Your task to perform on an android device: Open eBay Image 0: 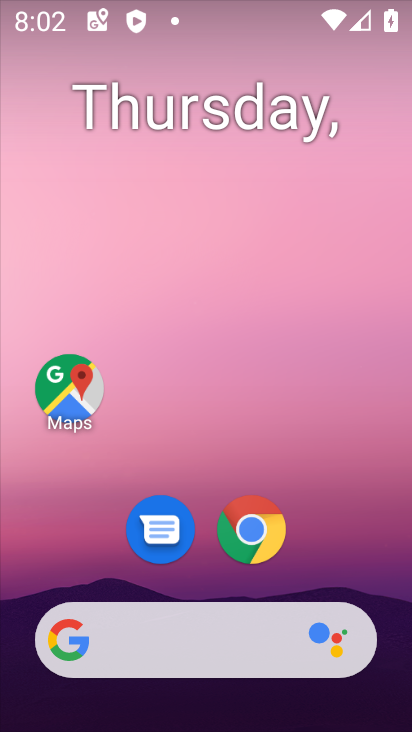
Step 0: click (246, 537)
Your task to perform on an android device: Open eBay Image 1: 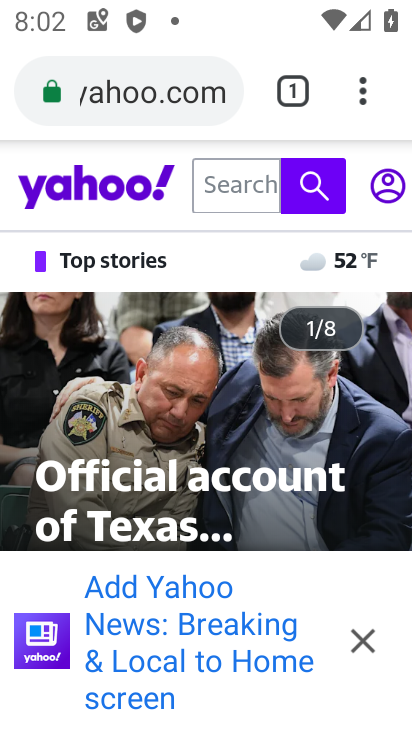
Step 1: click (365, 98)
Your task to perform on an android device: Open eBay Image 2: 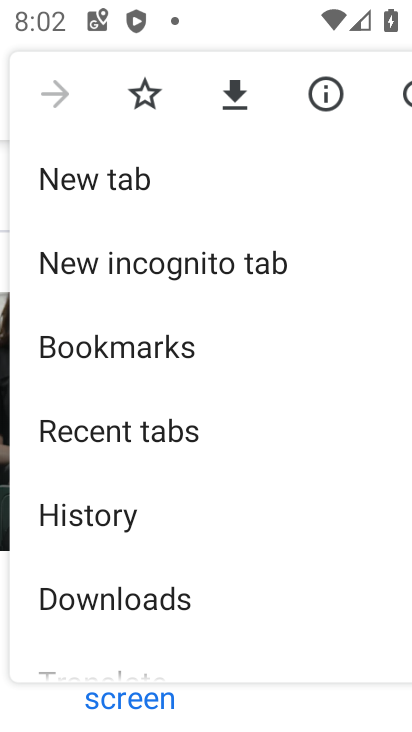
Step 2: click (67, 183)
Your task to perform on an android device: Open eBay Image 3: 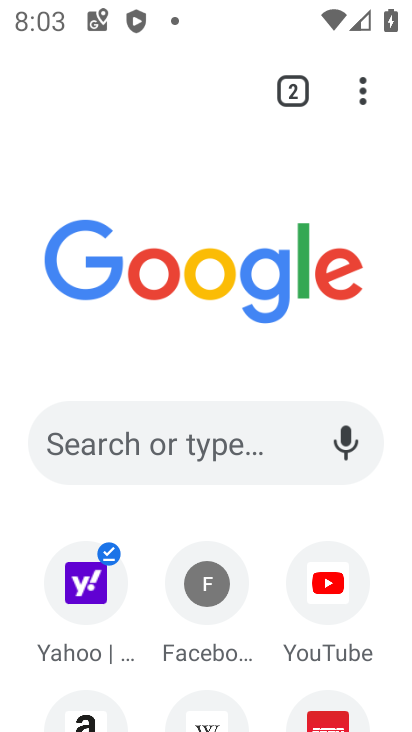
Step 3: click (195, 450)
Your task to perform on an android device: Open eBay Image 4: 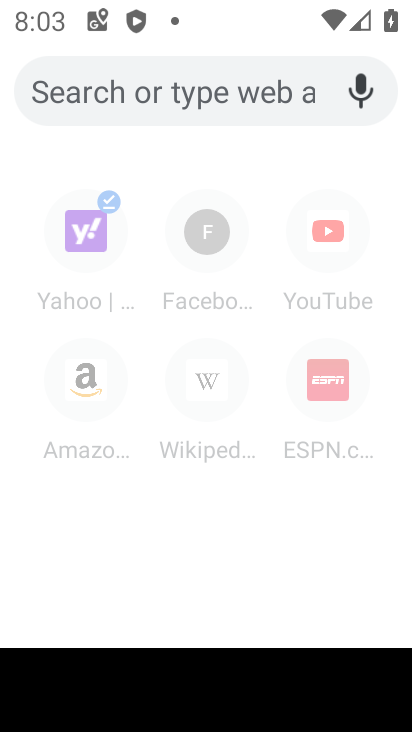
Step 4: type "eBay"
Your task to perform on an android device: Open eBay Image 5: 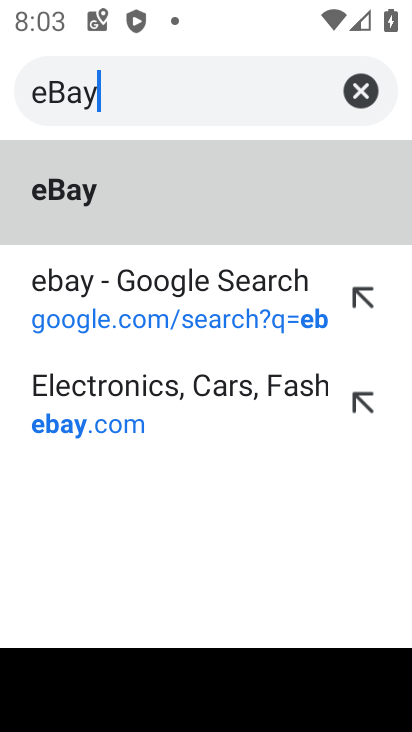
Step 5: type ""
Your task to perform on an android device: Open eBay Image 6: 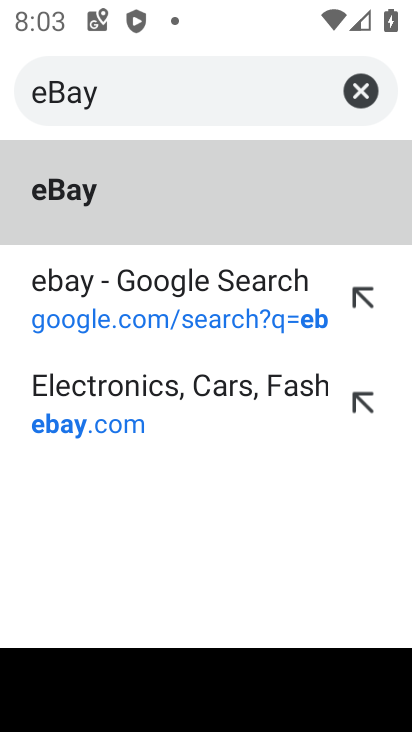
Step 6: click (47, 185)
Your task to perform on an android device: Open eBay Image 7: 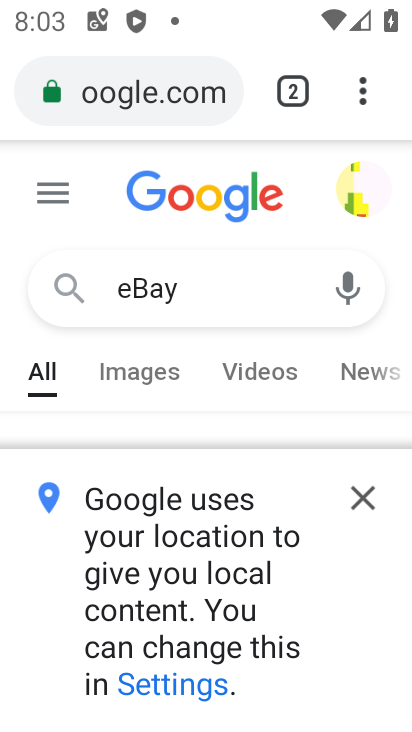
Step 7: click (363, 488)
Your task to perform on an android device: Open eBay Image 8: 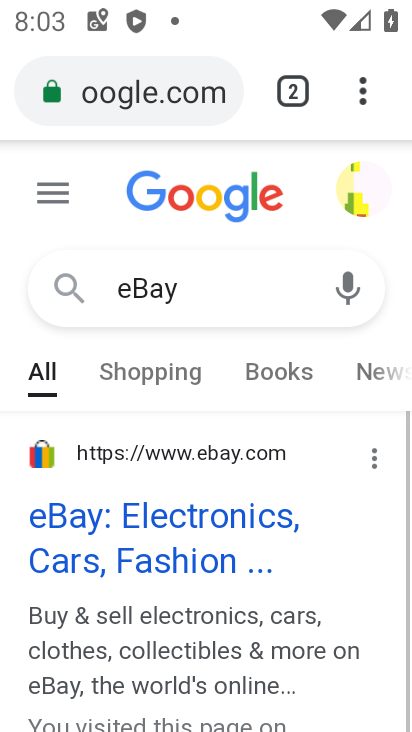
Step 8: click (158, 519)
Your task to perform on an android device: Open eBay Image 9: 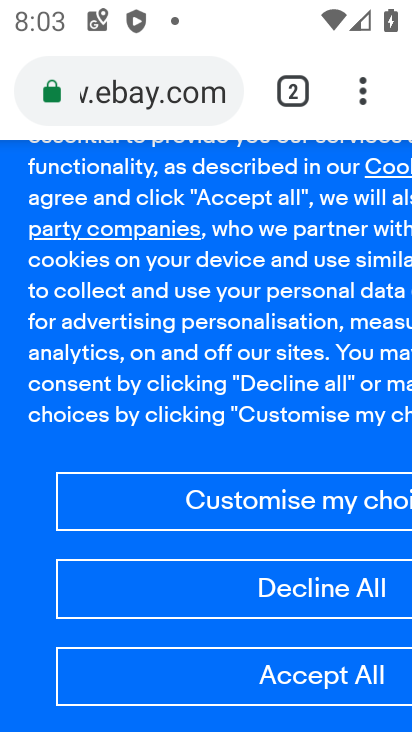
Step 9: task complete